Your task to perform on an android device: Go to Yahoo.com Image 0: 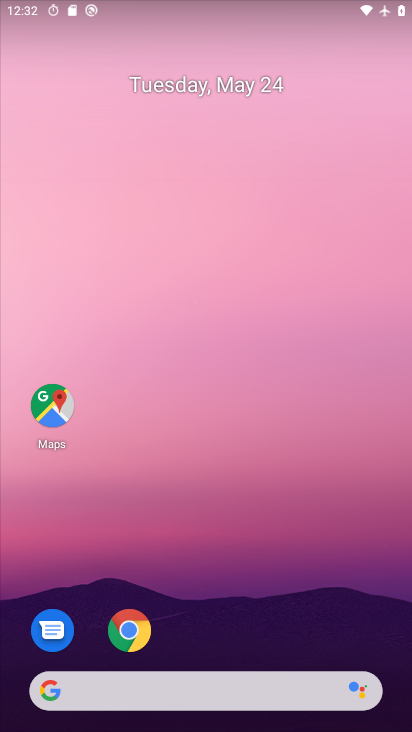
Step 0: click (135, 631)
Your task to perform on an android device: Go to Yahoo.com Image 1: 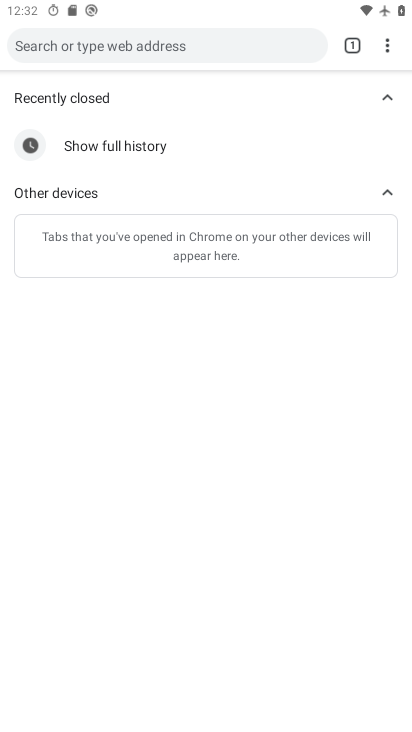
Step 1: click (205, 37)
Your task to perform on an android device: Go to Yahoo.com Image 2: 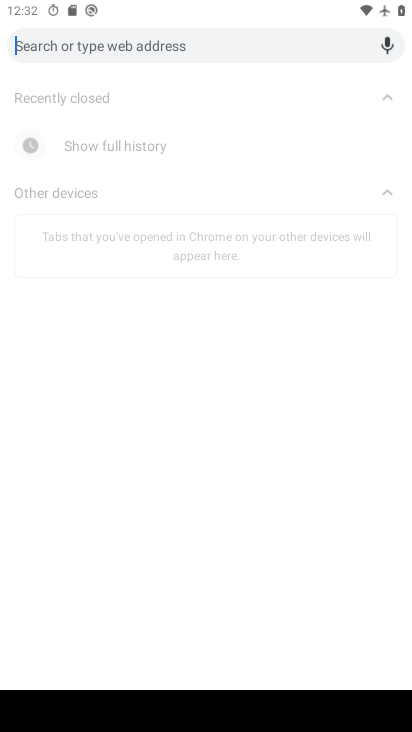
Step 2: type "yahoo.com"
Your task to perform on an android device: Go to Yahoo.com Image 3: 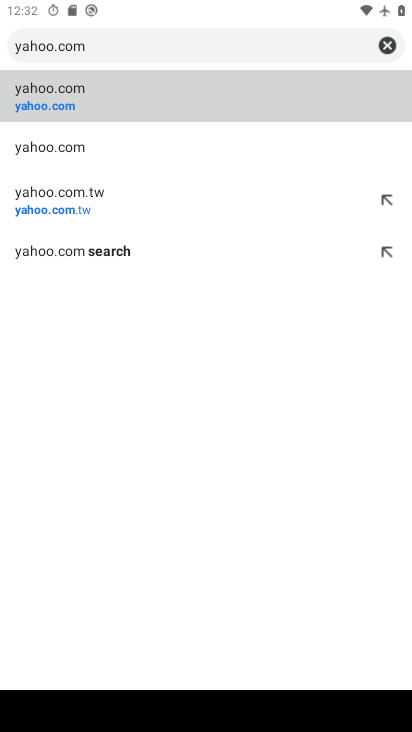
Step 3: click (80, 89)
Your task to perform on an android device: Go to Yahoo.com Image 4: 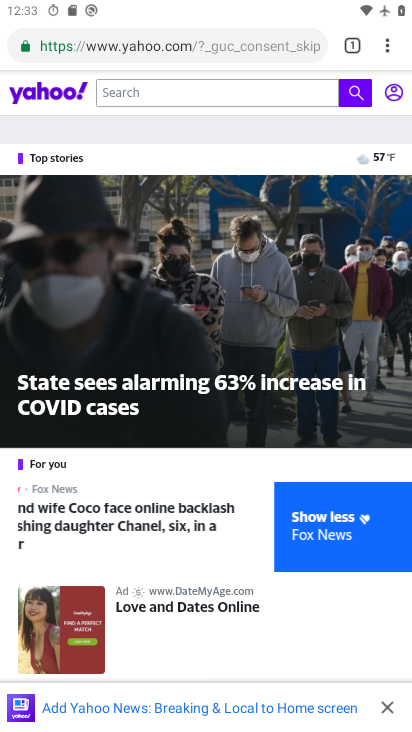
Step 4: task complete